Your task to perform on an android device: add a label to a message in the gmail app Image 0: 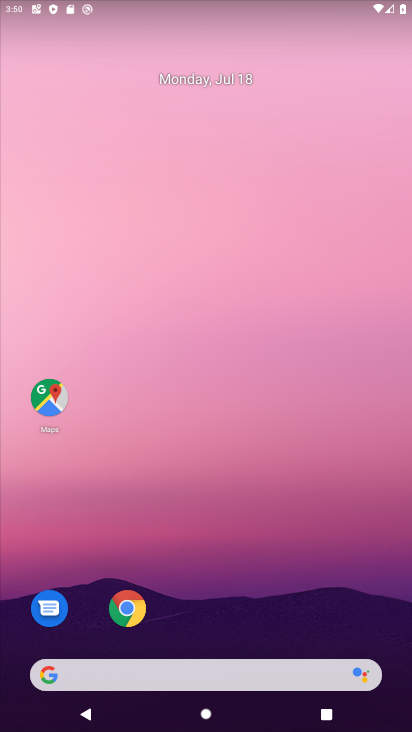
Step 0: drag from (297, 516) to (278, 214)
Your task to perform on an android device: add a label to a message in the gmail app Image 1: 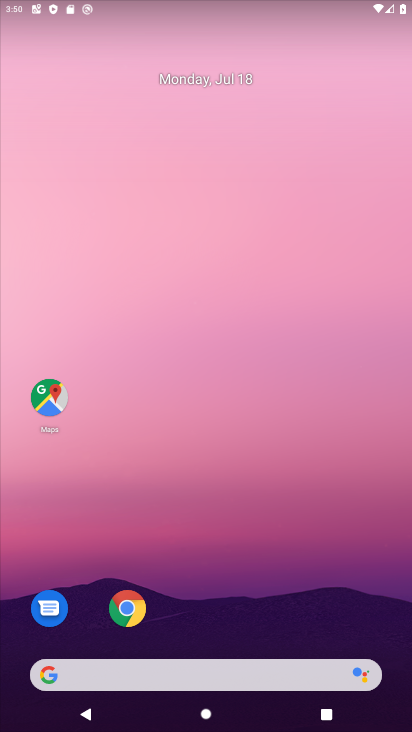
Step 1: drag from (302, 581) to (246, 207)
Your task to perform on an android device: add a label to a message in the gmail app Image 2: 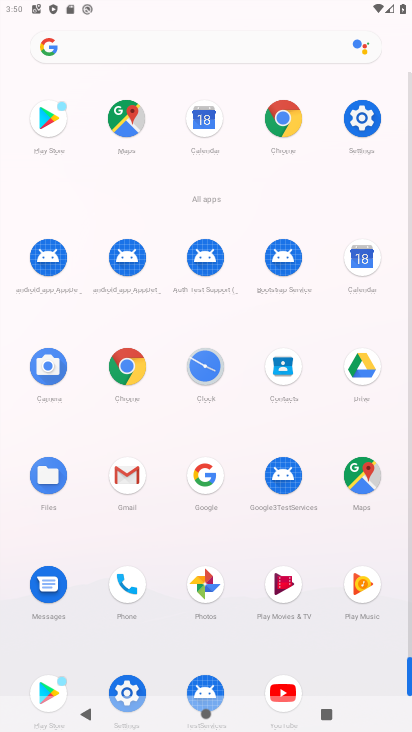
Step 2: click (121, 487)
Your task to perform on an android device: add a label to a message in the gmail app Image 3: 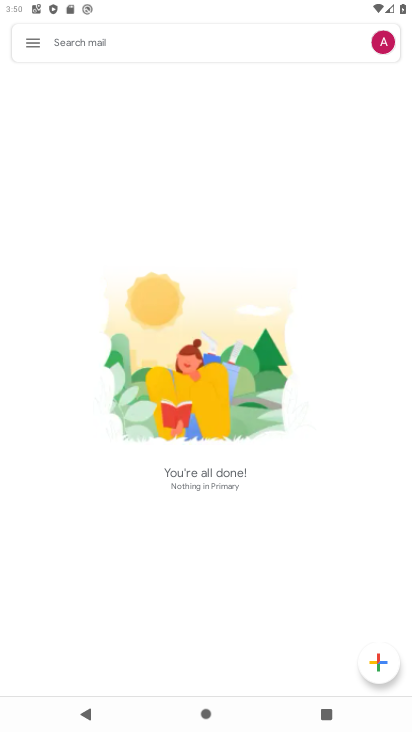
Step 3: task complete